Your task to perform on an android device: open the mobile data screen to see how much data has been used Image 0: 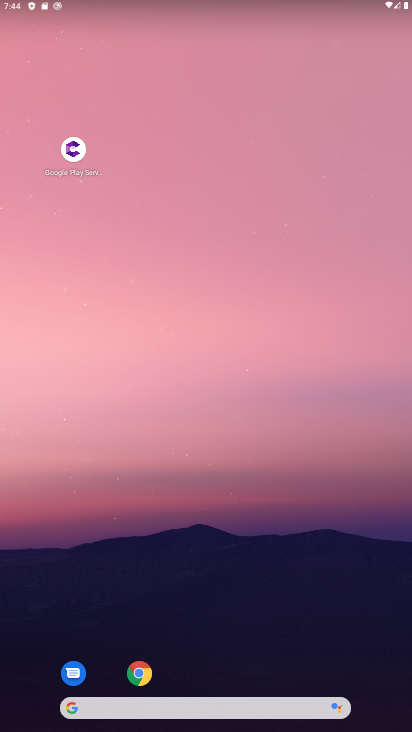
Step 0: drag from (319, 650) to (285, 160)
Your task to perform on an android device: open the mobile data screen to see how much data has been used Image 1: 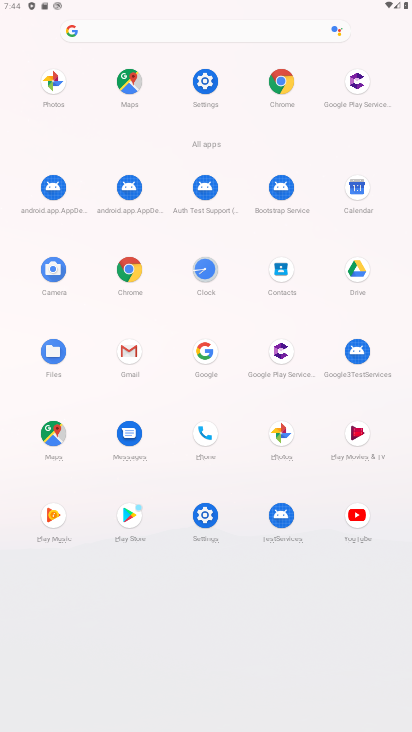
Step 1: click (209, 80)
Your task to perform on an android device: open the mobile data screen to see how much data has been used Image 2: 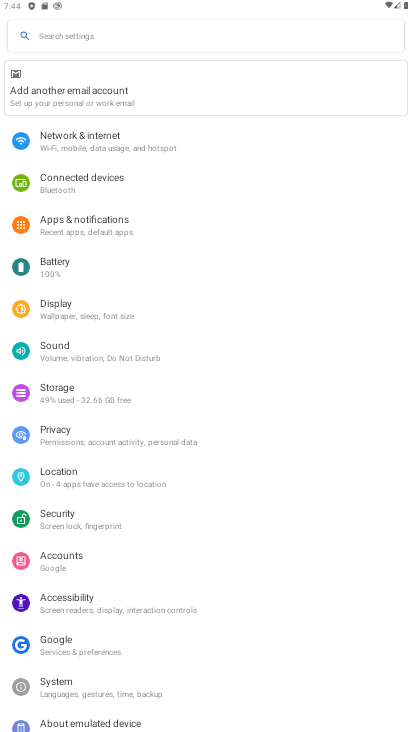
Step 2: click (87, 130)
Your task to perform on an android device: open the mobile data screen to see how much data has been used Image 3: 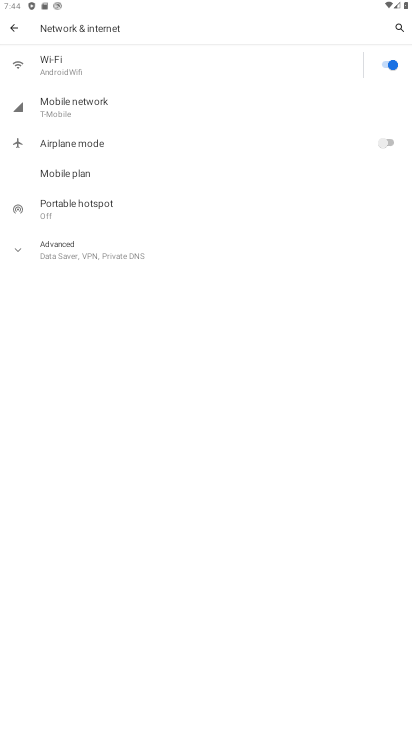
Step 3: click (84, 111)
Your task to perform on an android device: open the mobile data screen to see how much data has been used Image 4: 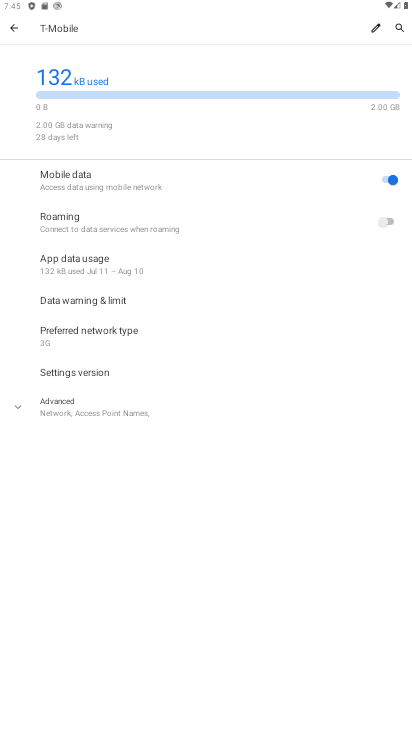
Step 4: task complete